Your task to perform on an android device: add a contact in the contacts app Image 0: 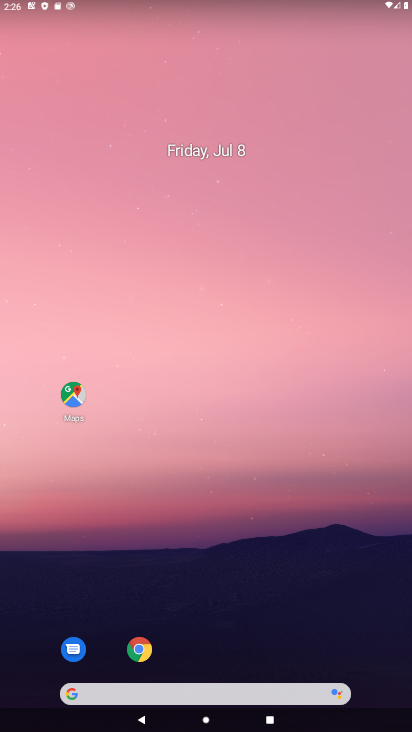
Step 0: drag from (365, 644) to (329, 95)
Your task to perform on an android device: add a contact in the contacts app Image 1: 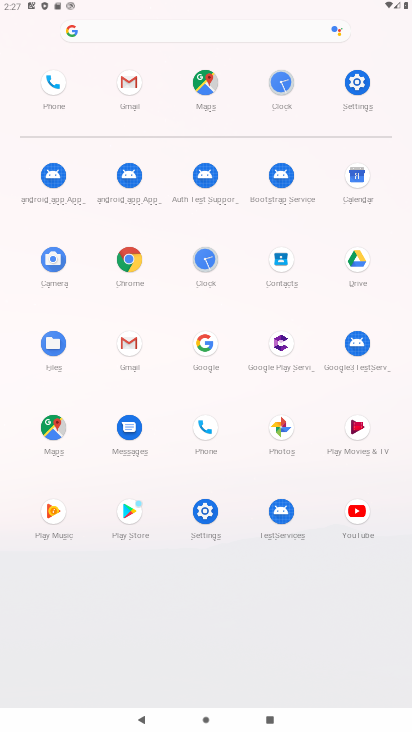
Step 1: click (282, 259)
Your task to perform on an android device: add a contact in the contacts app Image 2: 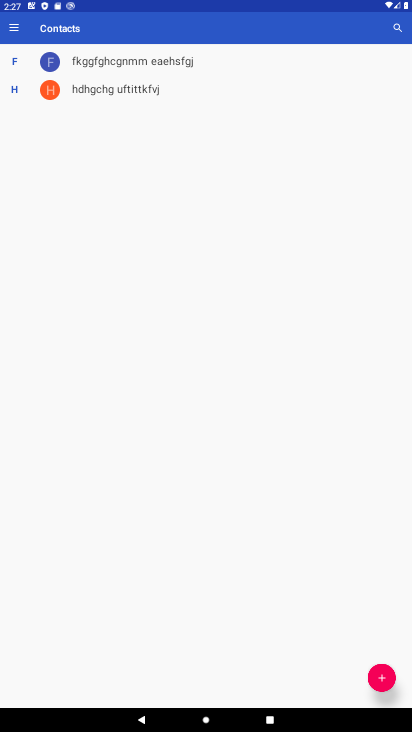
Step 2: click (384, 679)
Your task to perform on an android device: add a contact in the contacts app Image 3: 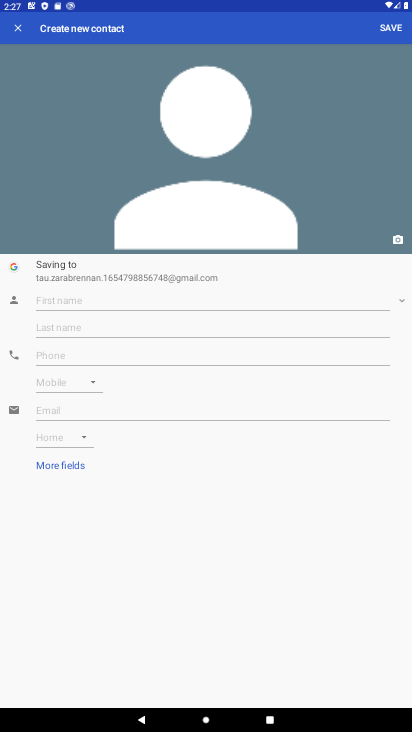
Step 3: click (108, 307)
Your task to perform on an android device: add a contact in the contacts app Image 4: 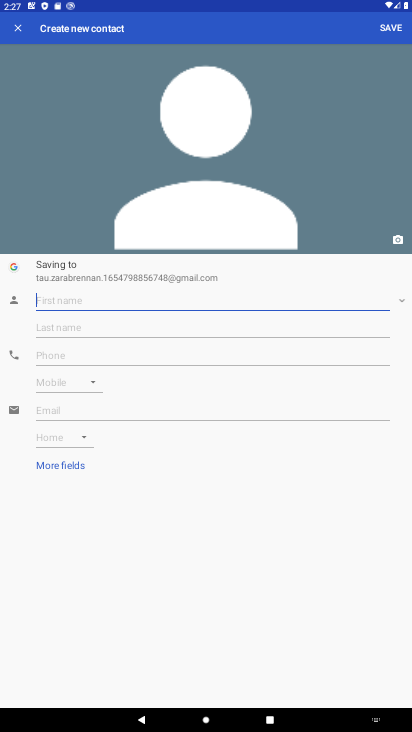
Step 4: type "iujffjjj"
Your task to perform on an android device: add a contact in the contacts app Image 5: 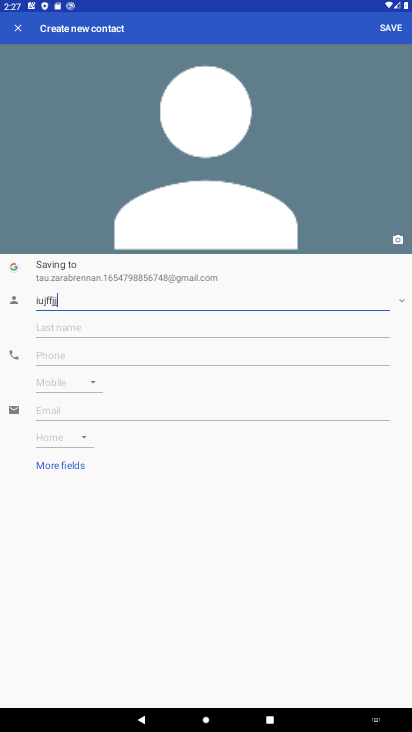
Step 5: click (55, 352)
Your task to perform on an android device: add a contact in the contacts app Image 6: 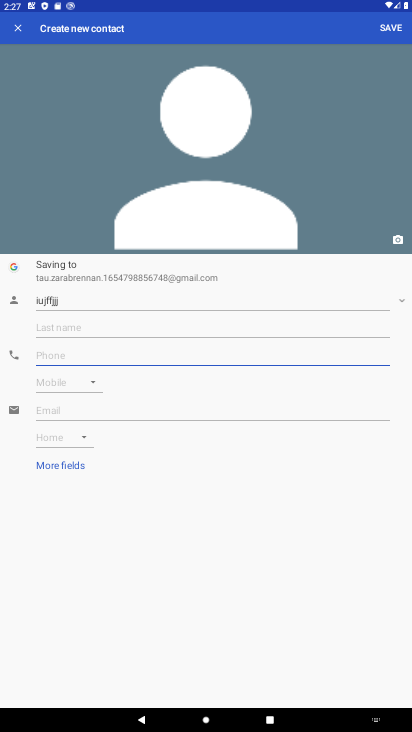
Step 6: type "098763466"
Your task to perform on an android device: add a contact in the contacts app Image 7: 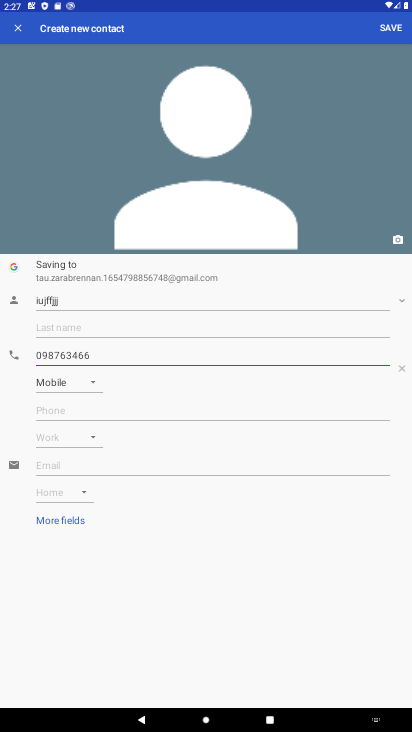
Step 7: click (90, 443)
Your task to perform on an android device: add a contact in the contacts app Image 8: 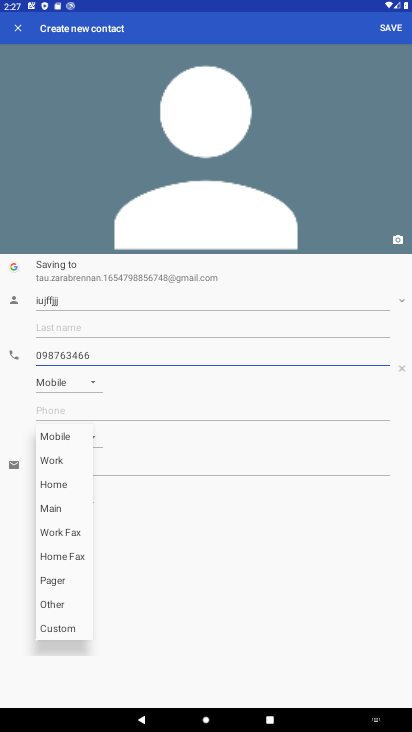
Step 8: click (88, 380)
Your task to perform on an android device: add a contact in the contacts app Image 9: 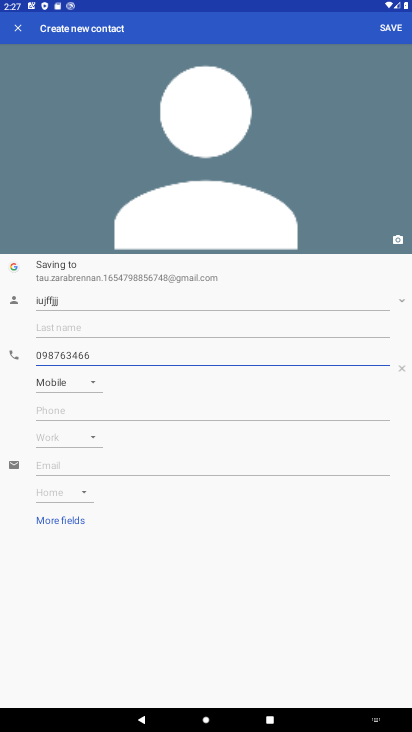
Step 9: click (85, 383)
Your task to perform on an android device: add a contact in the contacts app Image 10: 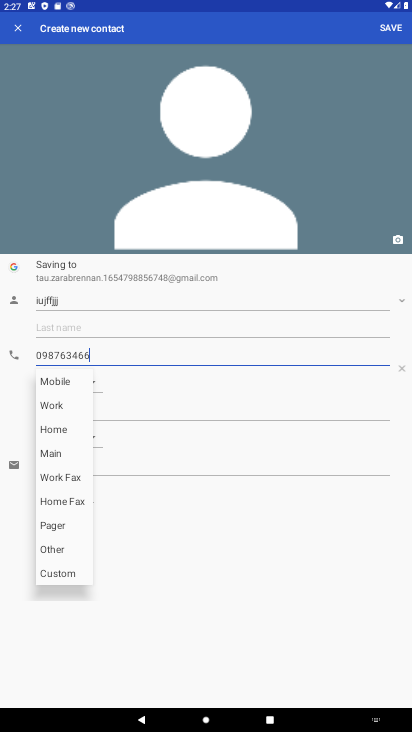
Step 10: click (91, 382)
Your task to perform on an android device: add a contact in the contacts app Image 11: 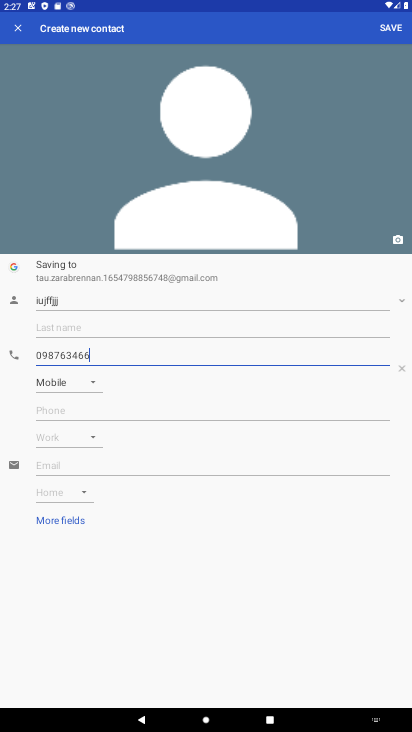
Step 11: click (92, 383)
Your task to perform on an android device: add a contact in the contacts app Image 12: 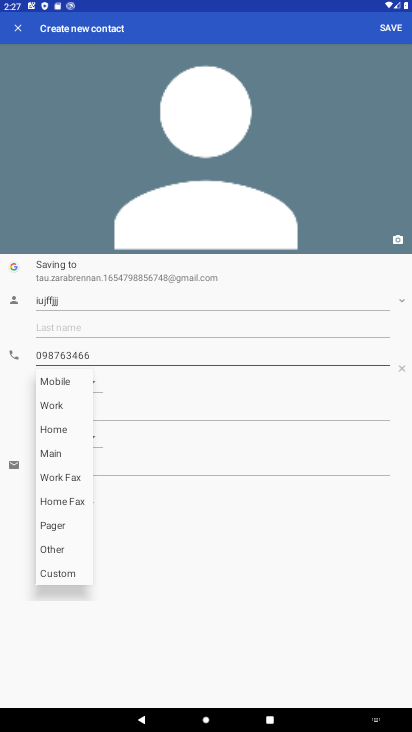
Step 12: click (55, 406)
Your task to perform on an android device: add a contact in the contacts app Image 13: 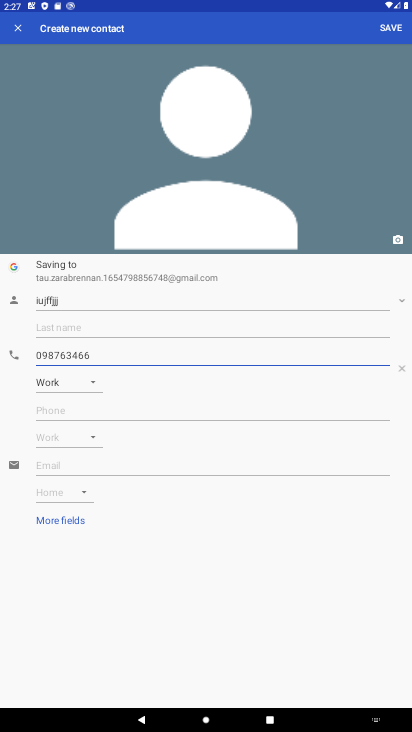
Step 13: click (385, 25)
Your task to perform on an android device: add a contact in the contacts app Image 14: 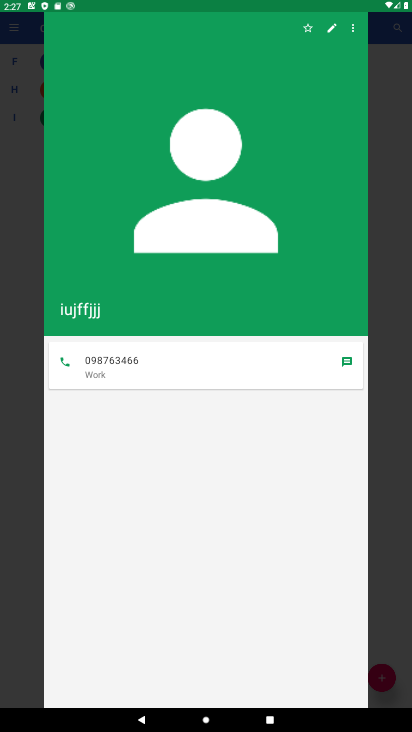
Step 14: task complete